Your task to perform on an android device: turn on improve location accuracy Image 0: 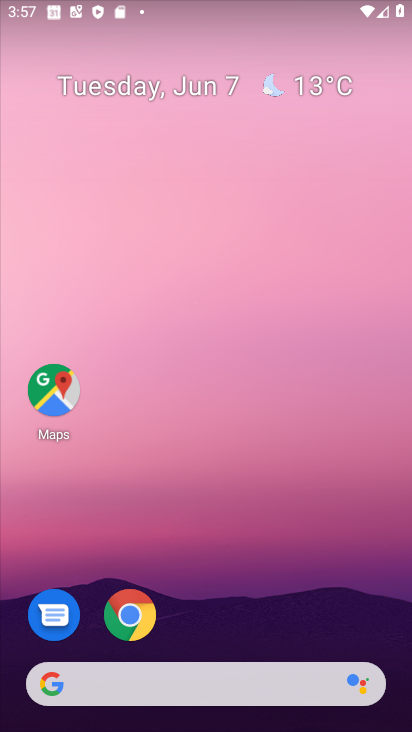
Step 0: drag from (220, 598) to (229, 229)
Your task to perform on an android device: turn on improve location accuracy Image 1: 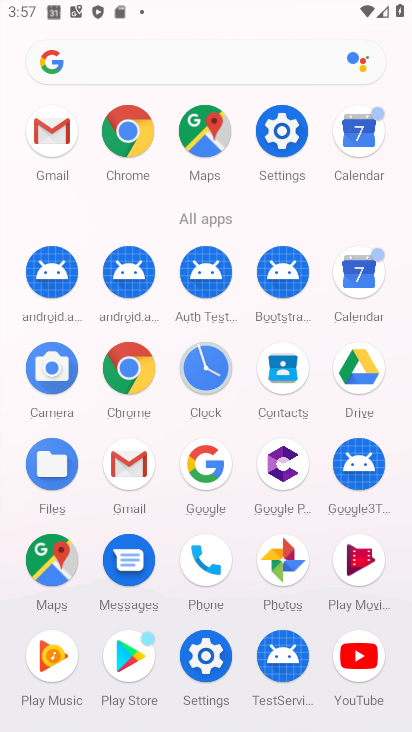
Step 1: click (207, 662)
Your task to perform on an android device: turn on improve location accuracy Image 2: 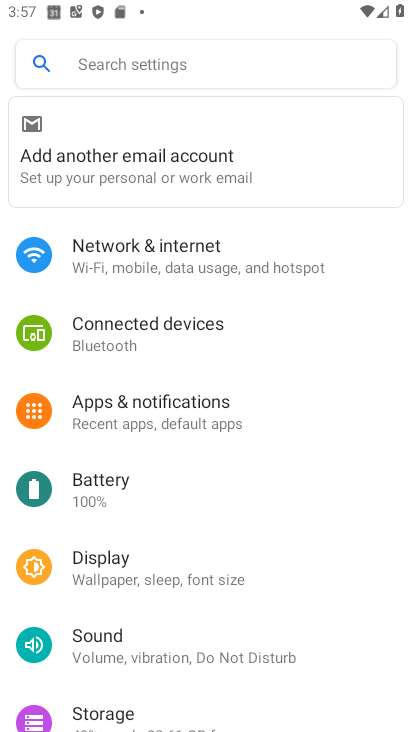
Step 2: drag from (161, 603) to (248, 144)
Your task to perform on an android device: turn on improve location accuracy Image 3: 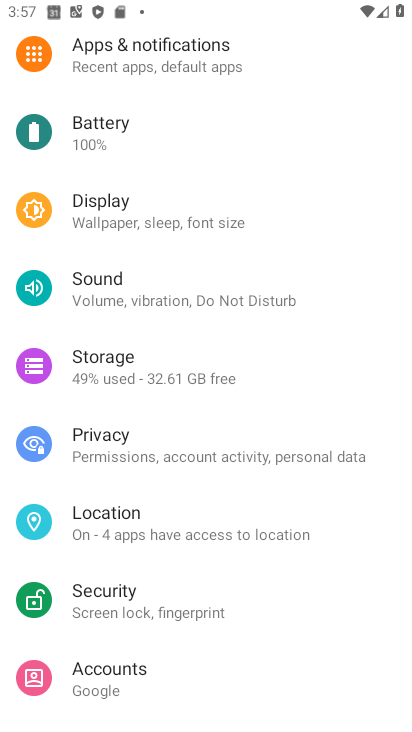
Step 3: click (155, 532)
Your task to perform on an android device: turn on improve location accuracy Image 4: 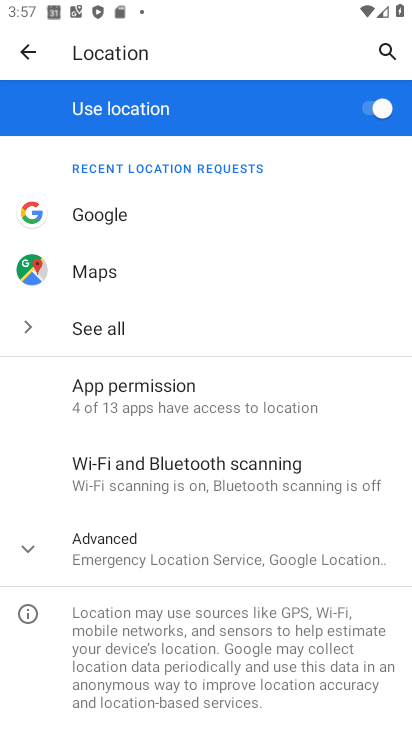
Step 4: click (106, 550)
Your task to perform on an android device: turn on improve location accuracy Image 5: 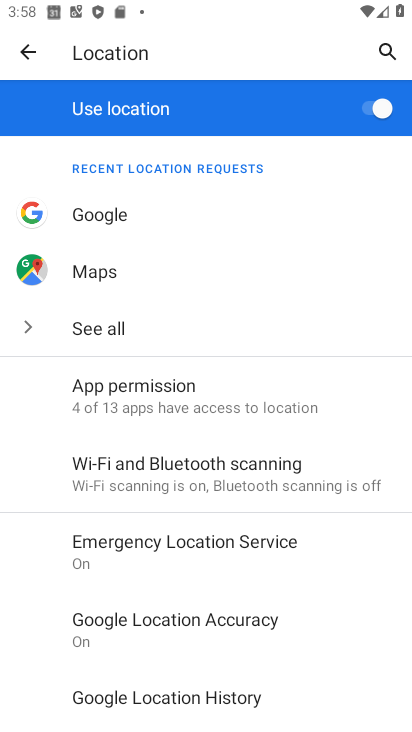
Step 5: click (185, 630)
Your task to perform on an android device: turn on improve location accuracy Image 6: 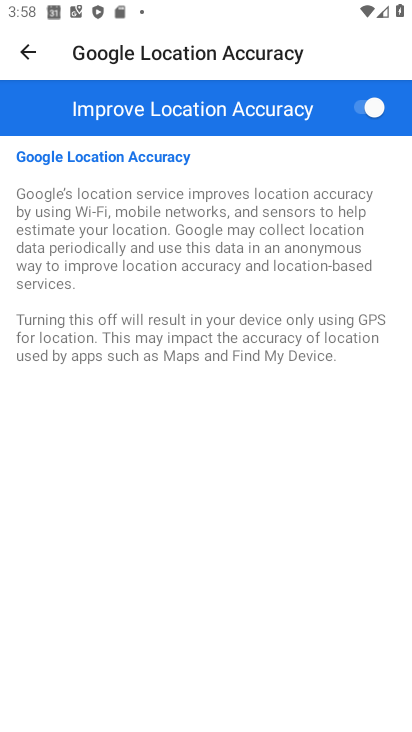
Step 6: task complete